Your task to perform on an android device: toggle show notifications on the lock screen Image 0: 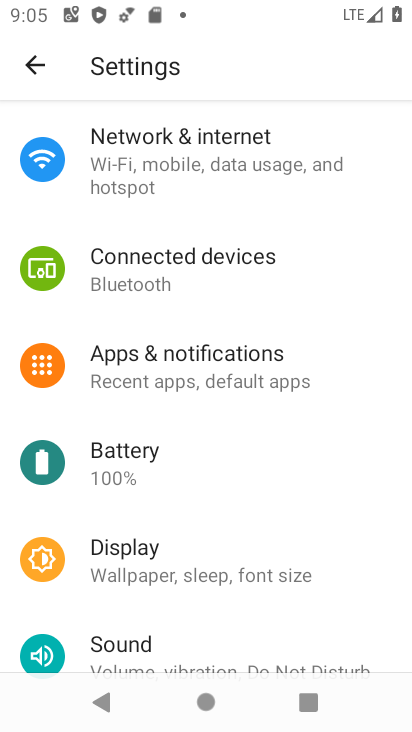
Step 0: click (194, 364)
Your task to perform on an android device: toggle show notifications on the lock screen Image 1: 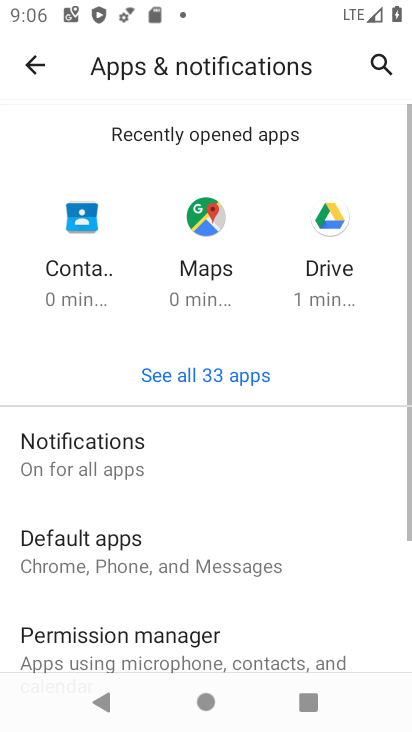
Step 1: click (159, 464)
Your task to perform on an android device: toggle show notifications on the lock screen Image 2: 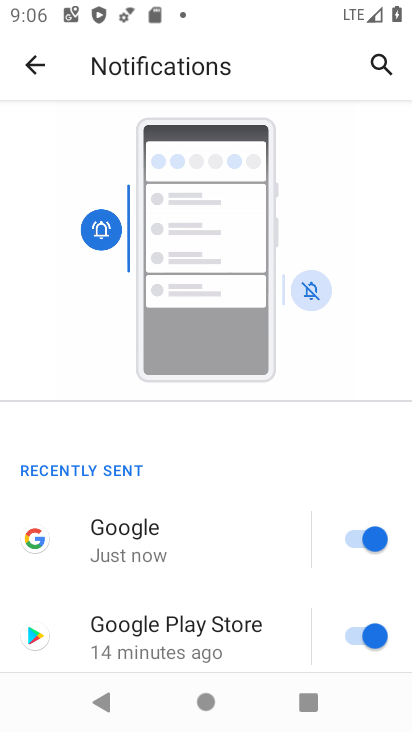
Step 2: drag from (11, 495) to (18, 91)
Your task to perform on an android device: toggle show notifications on the lock screen Image 3: 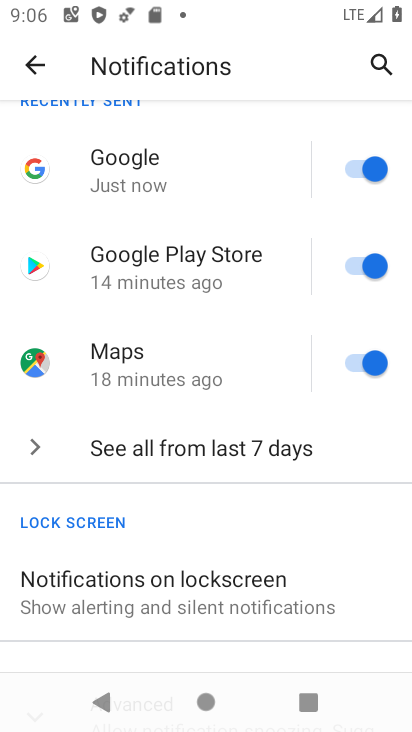
Step 3: click (180, 611)
Your task to perform on an android device: toggle show notifications on the lock screen Image 4: 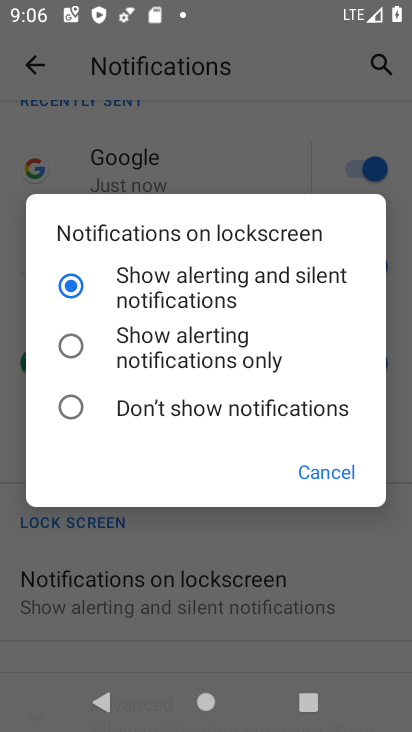
Step 4: click (187, 298)
Your task to perform on an android device: toggle show notifications on the lock screen Image 5: 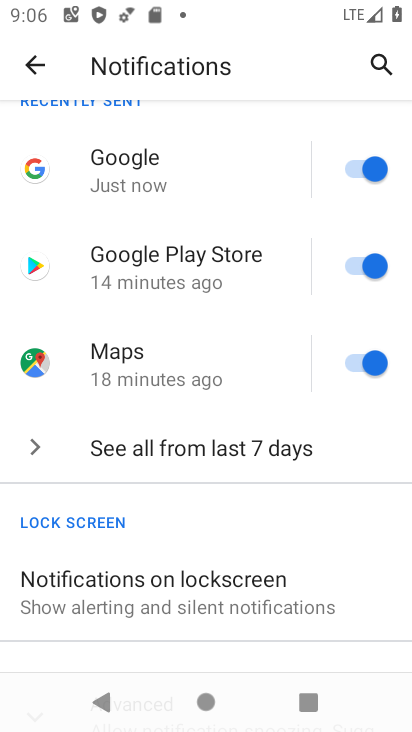
Step 5: click (203, 575)
Your task to perform on an android device: toggle show notifications on the lock screen Image 6: 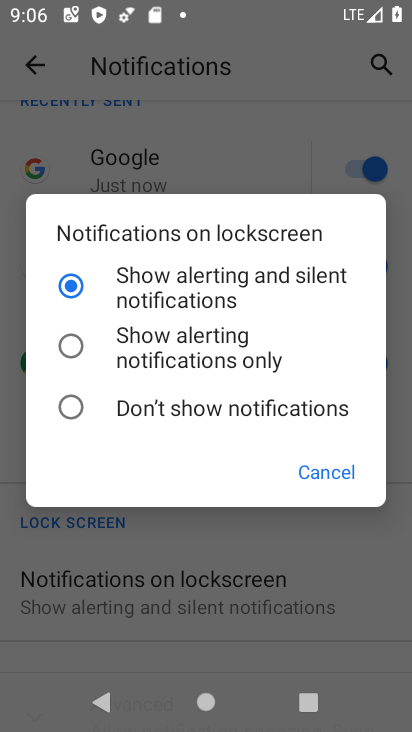
Step 6: click (166, 379)
Your task to perform on an android device: toggle show notifications on the lock screen Image 7: 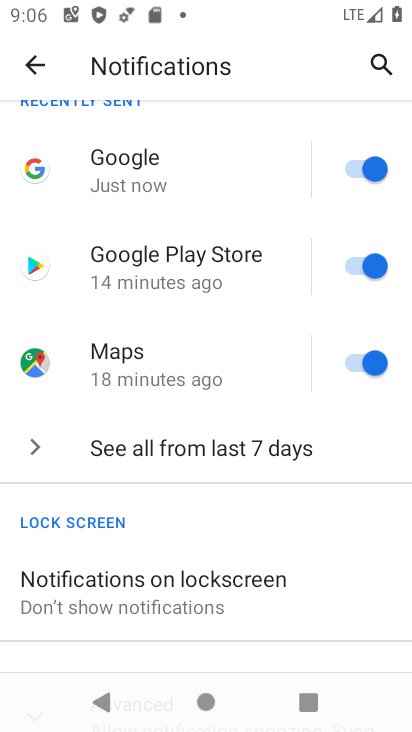
Step 7: task complete